Your task to perform on an android device: star an email in the gmail app Image 0: 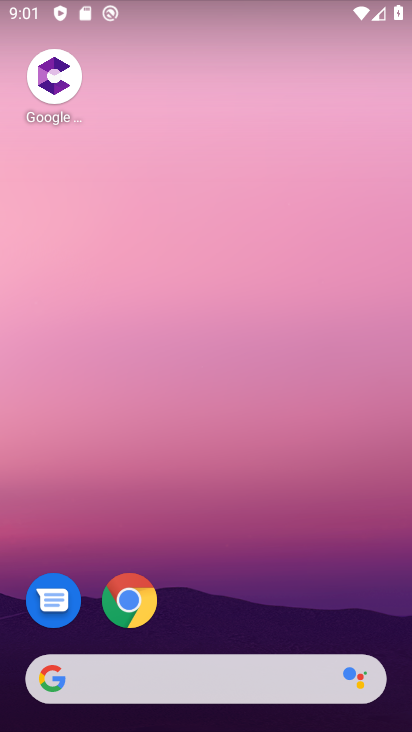
Step 0: task complete